Your task to perform on an android device: check the backup settings in the google photos Image 0: 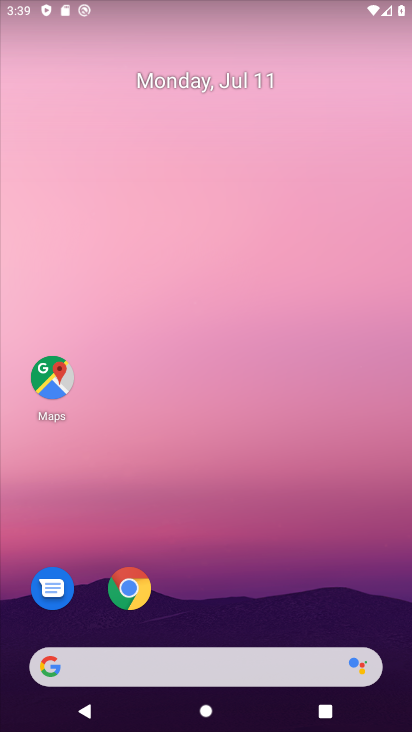
Step 0: press home button
Your task to perform on an android device: check the backup settings in the google photos Image 1: 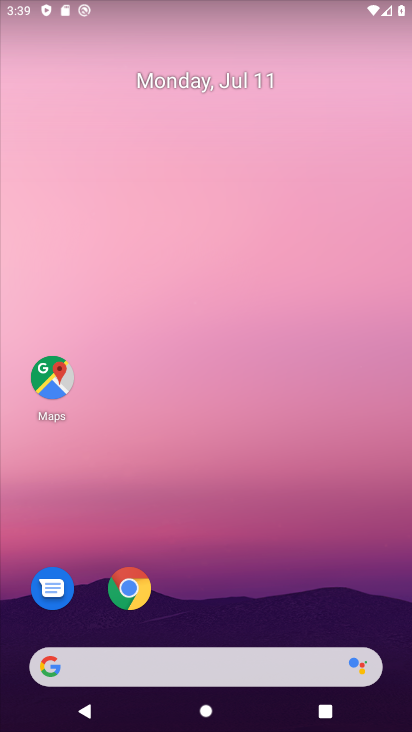
Step 1: drag from (358, 606) to (402, 189)
Your task to perform on an android device: check the backup settings in the google photos Image 2: 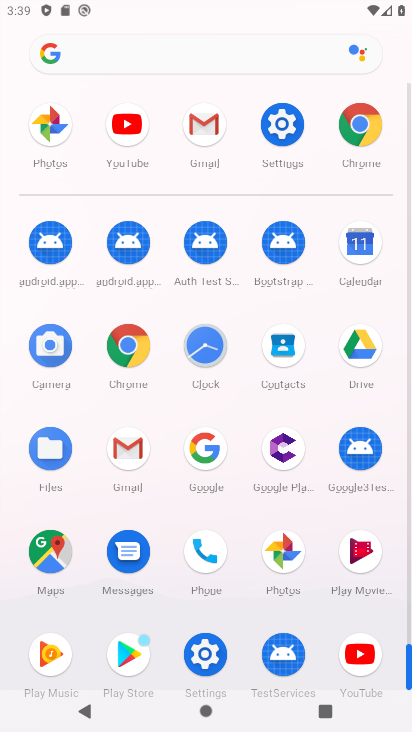
Step 2: click (295, 545)
Your task to perform on an android device: check the backup settings in the google photos Image 3: 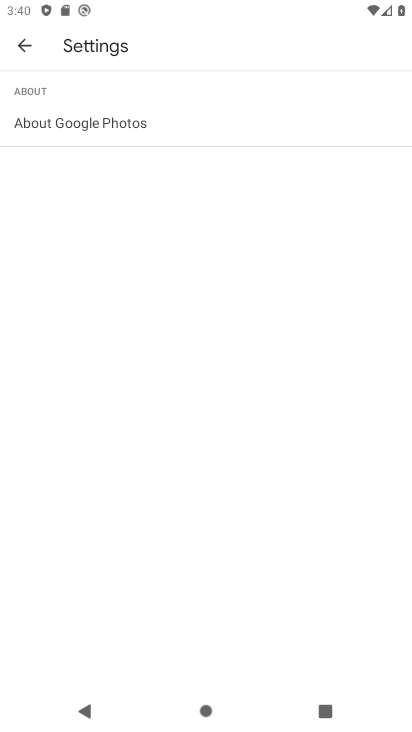
Step 3: press back button
Your task to perform on an android device: check the backup settings in the google photos Image 4: 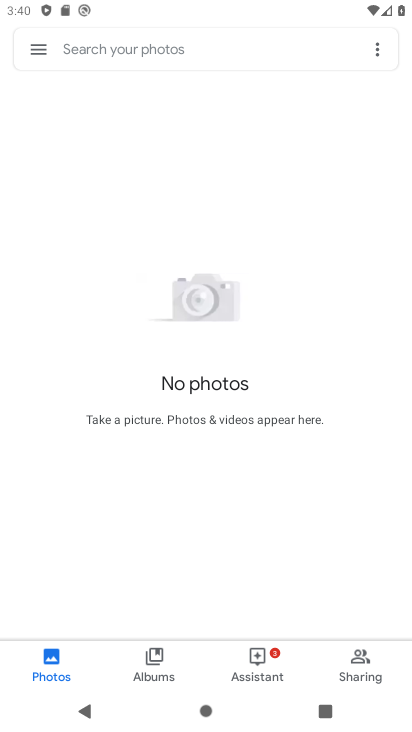
Step 4: click (39, 43)
Your task to perform on an android device: check the backup settings in the google photos Image 5: 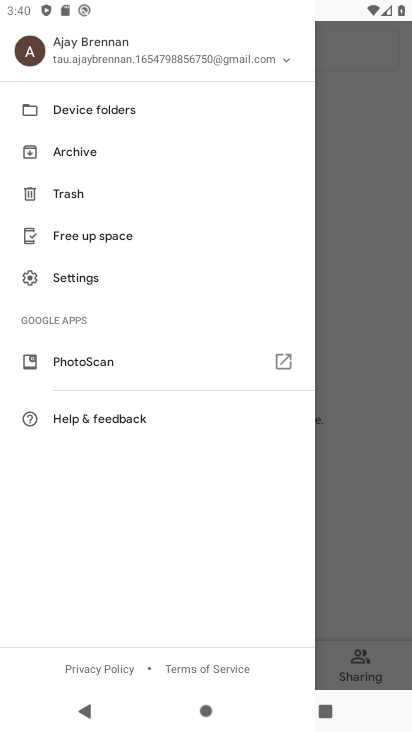
Step 5: click (123, 284)
Your task to perform on an android device: check the backup settings in the google photos Image 6: 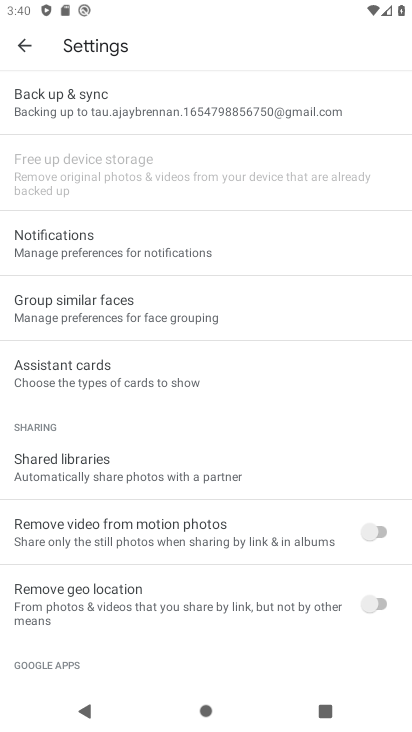
Step 6: drag from (288, 438) to (298, 347)
Your task to perform on an android device: check the backup settings in the google photos Image 7: 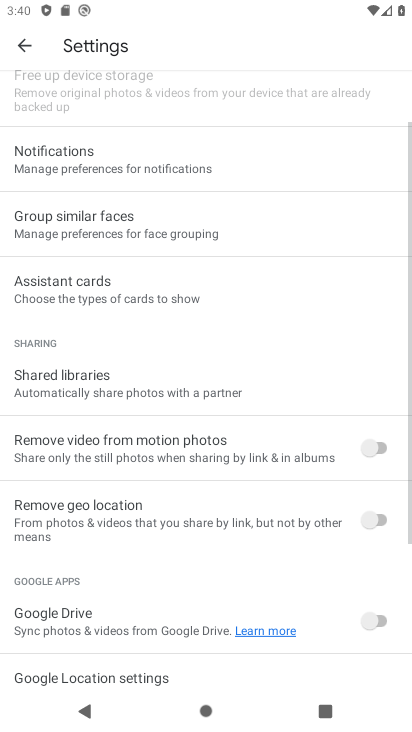
Step 7: drag from (302, 492) to (296, 330)
Your task to perform on an android device: check the backup settings in the google photos Image 8: 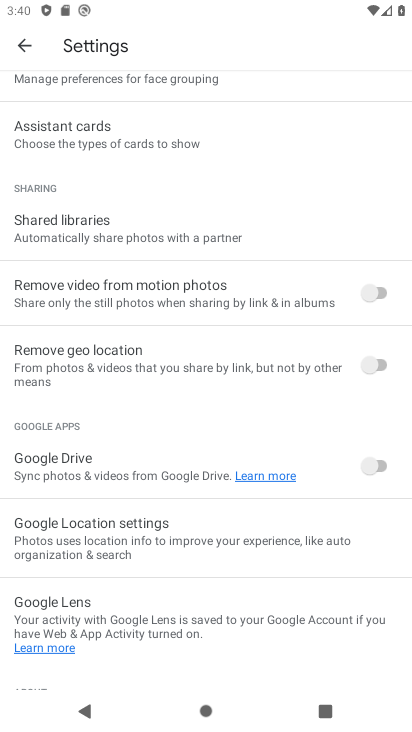
Step 8: drag from (294, 529) to (303, 356)
Your task to perform on an android device: check the backup settings in the google photos Image 9: 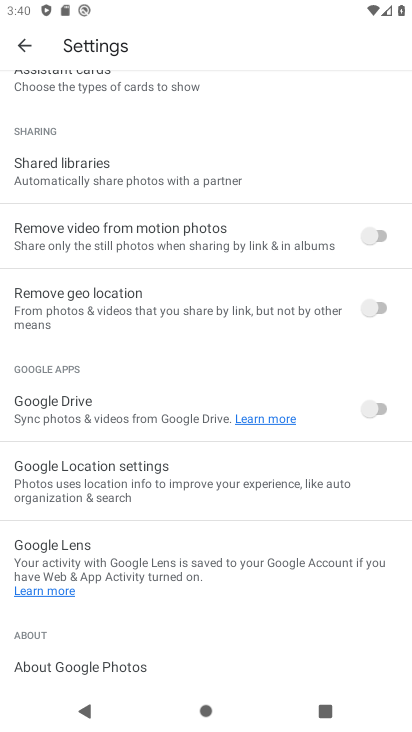
Step 9: drag from (301, 276) to (306, 347)
Your task to perform on an android device: check the backup settings in the google photos Image 10: 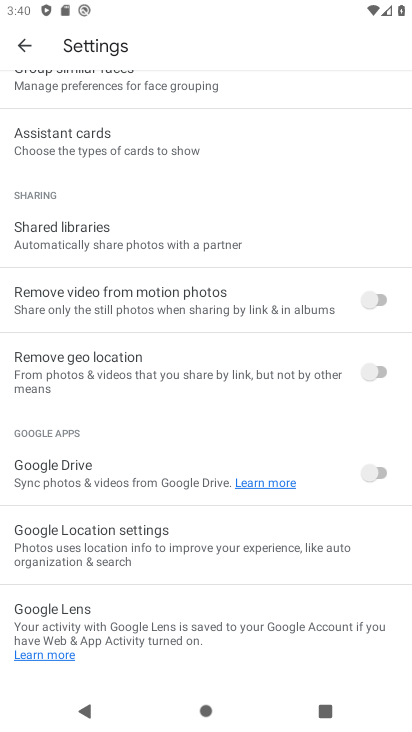
Step 10: drag from (292, 231) to (303, 349)
Your task to perform on an android device: check the backup settings in the google photos Image 11: 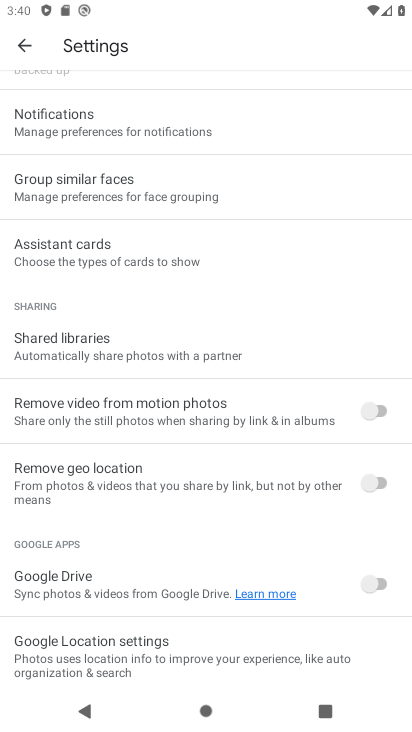
Step 11: drag from (289, 188) to (285, 322)
Your task to perform on an android device: check the backup settings in the google photos Image 12: 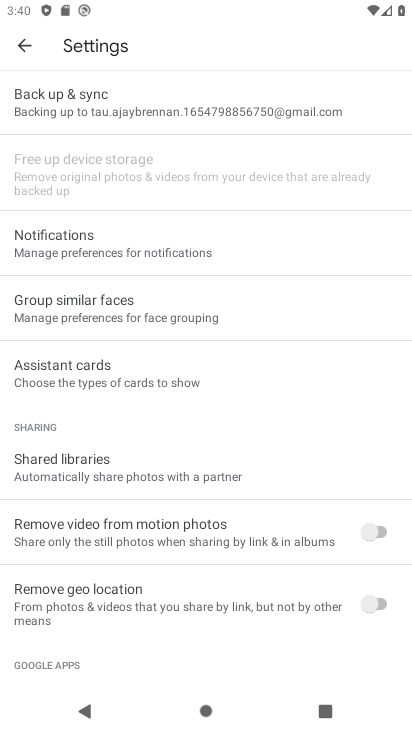
Step 12: drag from (285, 254) to (293, 359)
Your task to perform on an android device: check the backup settings in the google photos Image 13: 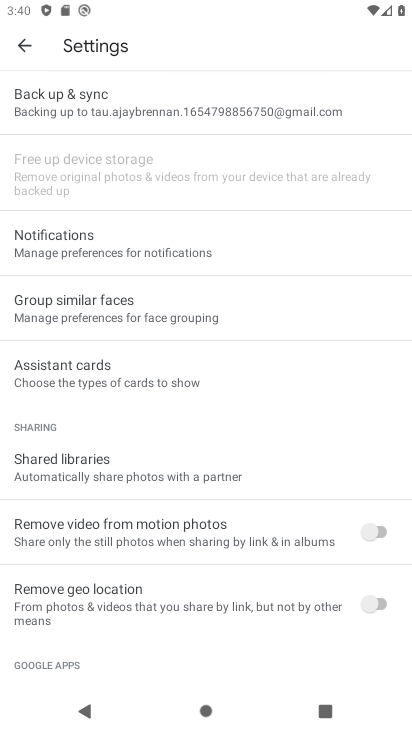
Step 13: click (244, 107)
Your task to perform on an android device: check the backup settings in the google photos Image 14: 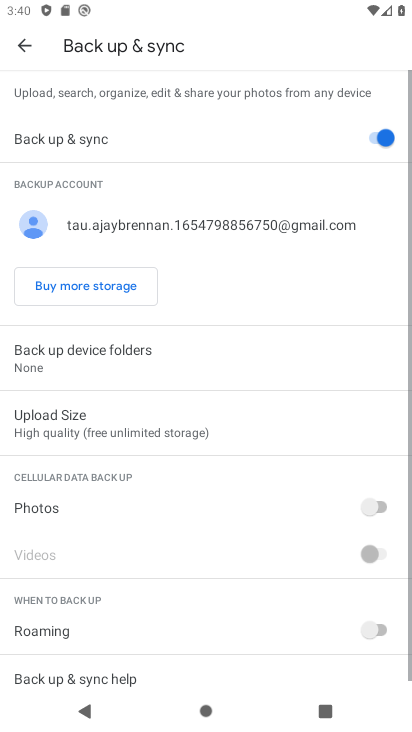
Step 14: task complete